Your task to perform on an android device: turn on translation in the chrome app Image 0: 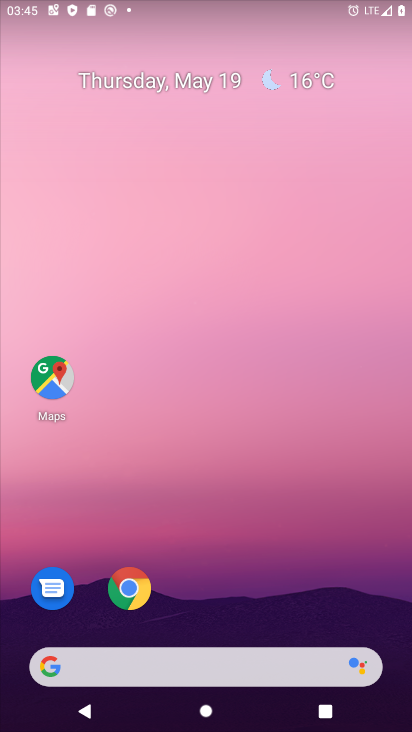
Step 0: click (143, 591)
Your task to perform on an android device: turn on translation in the chrome app Image 1: 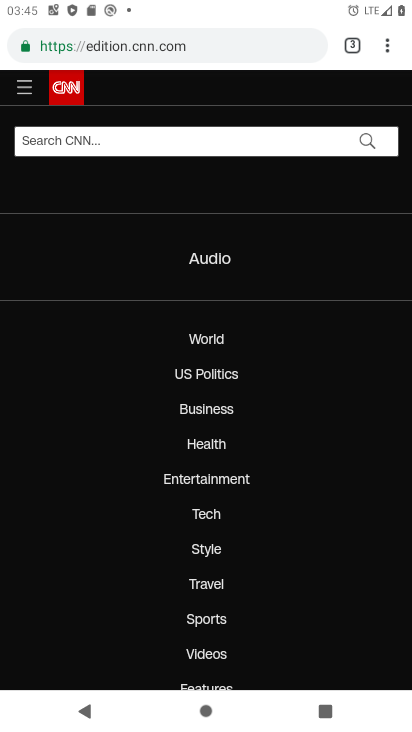
Step 1: click (390, 36)
Your task to perform on an android device: turn on translation in the chrome app Image 2: 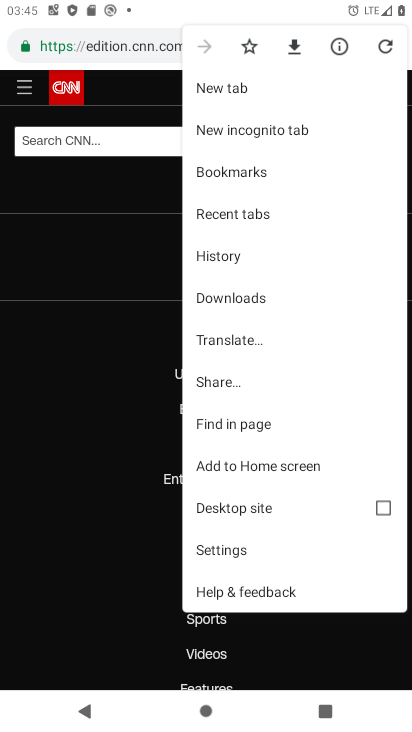
Step 2: click (208, 551)
Your task to perform on an android device: turn on translation in the chrome app Image 3: 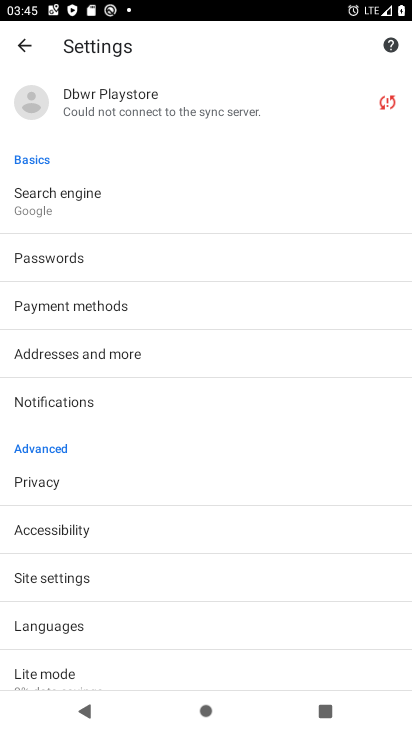
Step 3: click (46, 626)
Your task to perform on an android device: turn on translation in the chrome app Image 4: 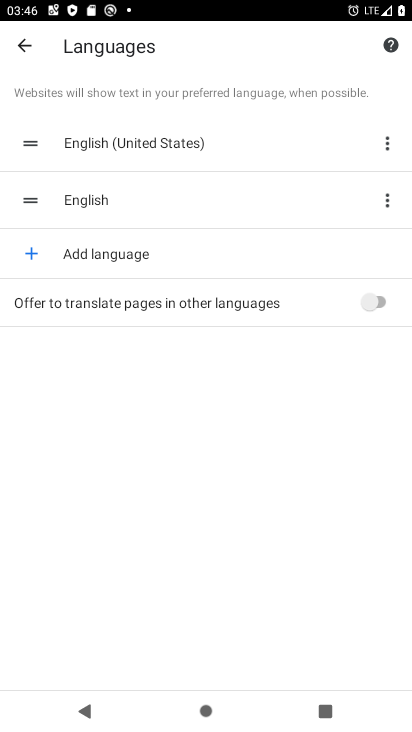
Step 4: click (378, 300)
Your task to perform on an android device: turn on translation in the chrome app Image 5: 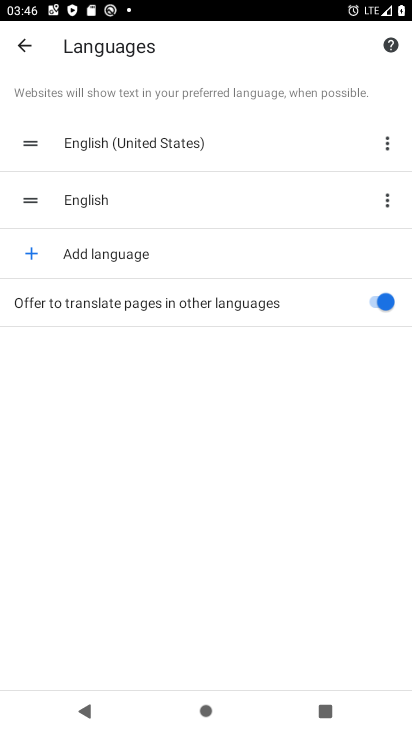
Step 5: task complete